Your task to perform on an android device: change the clock display to show seconds Image 0: 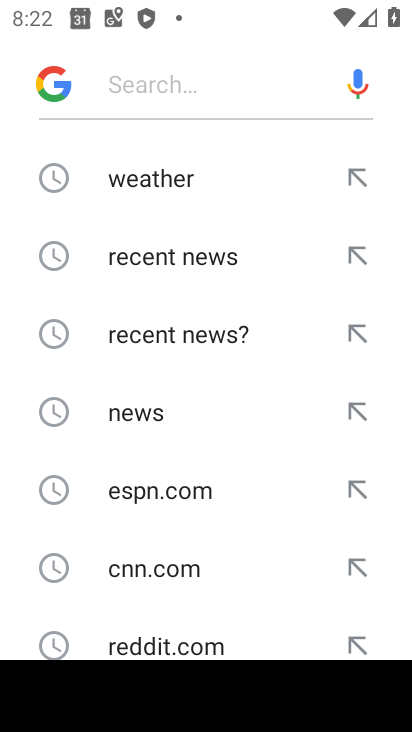
Step 0: press home button
Your task to perform on an android device: change the clock display to show seconds Image 1: 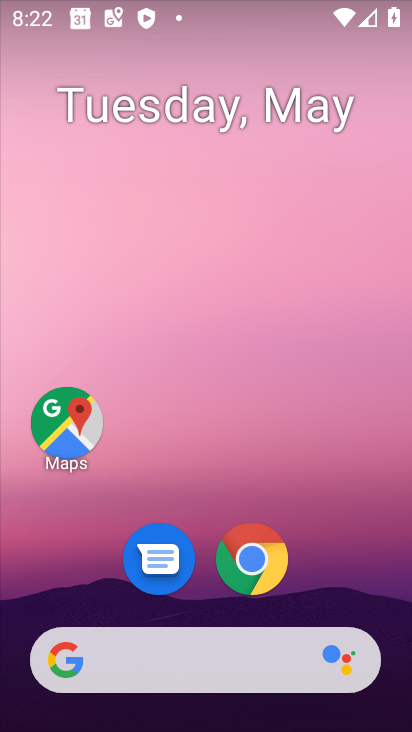
Step 1: drag from (216, 598) to (366, 39)
Your task to perform on an android device: change the clock display to show seconds Image 2: 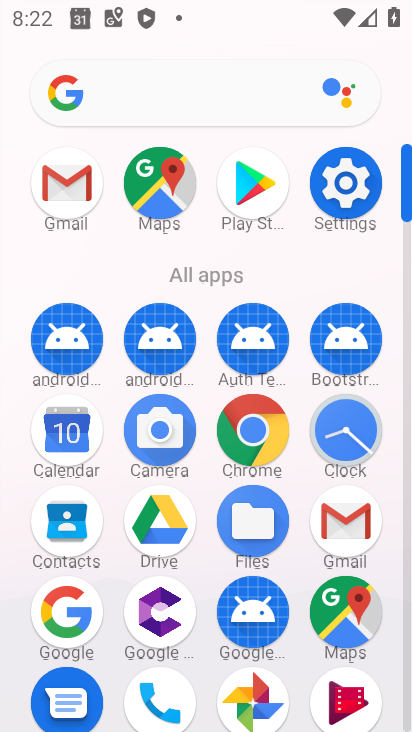
Step 2: click (341, 429)
Your task to perform on an android device: change the clock display to show seconds Image 3: 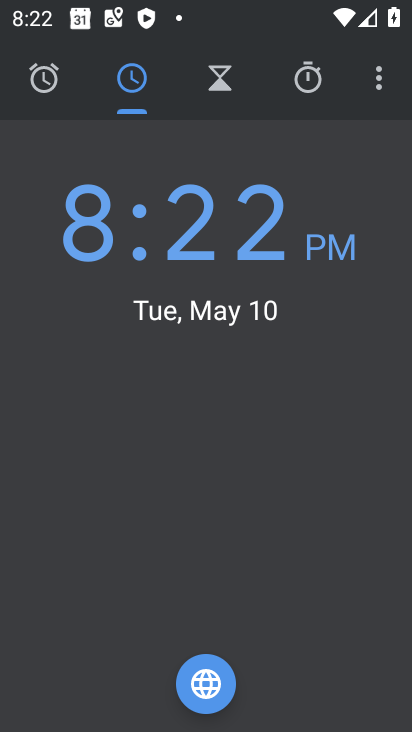
Step 3: click (383, 71)
Your task to perform on an android device: change the clock display to show seconds Image 4: 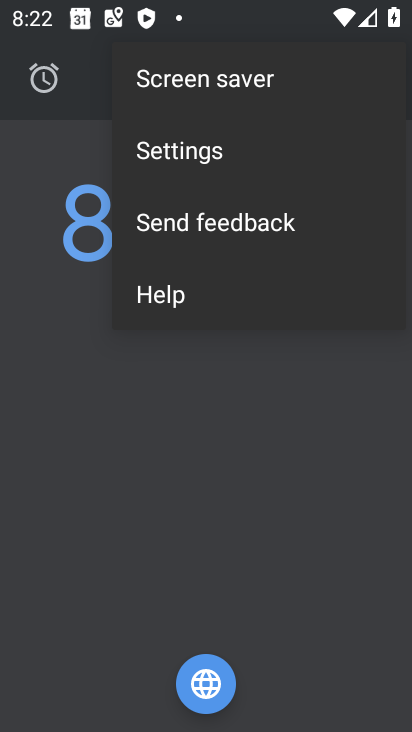
Step 4: click (231, 151)
Your task to perform on an android device: change the clock display to show seconds Image 5: 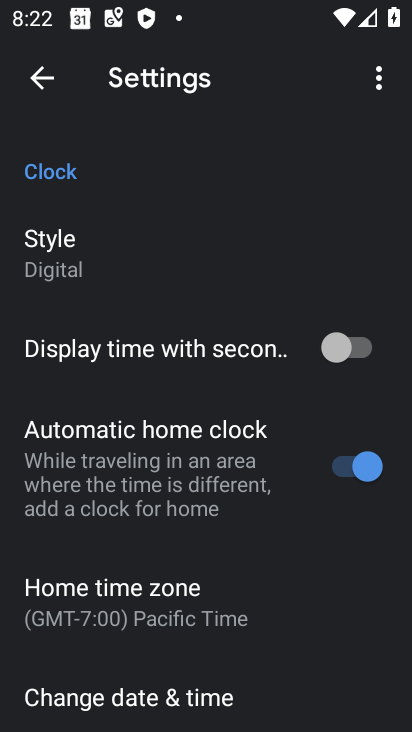
Step 5: click (339, 349)
Your task to perform on an android device: change the clock display to show seconds Image 6: 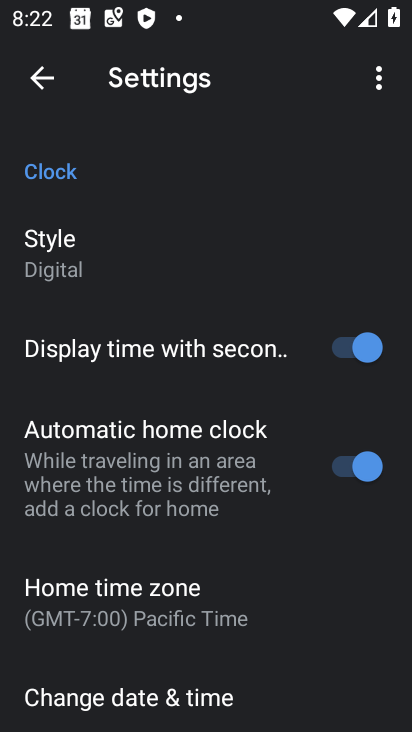
Step 6: task complete